Your task to perform on an android device: Open my contact list Image 0: 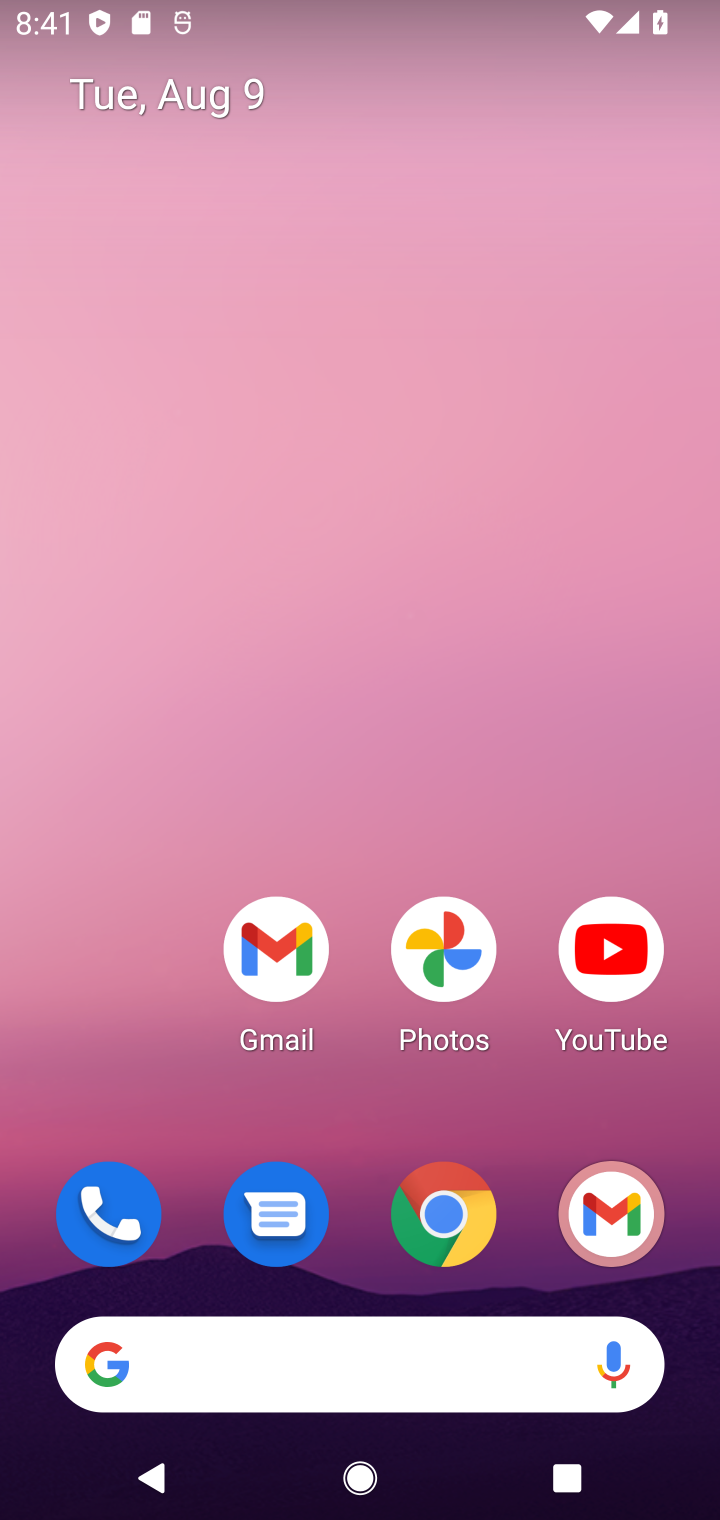
Step 0: drag from (46, 1469) to (399, 509)
Your task to perform on an android device: Open my contact list Image 1: 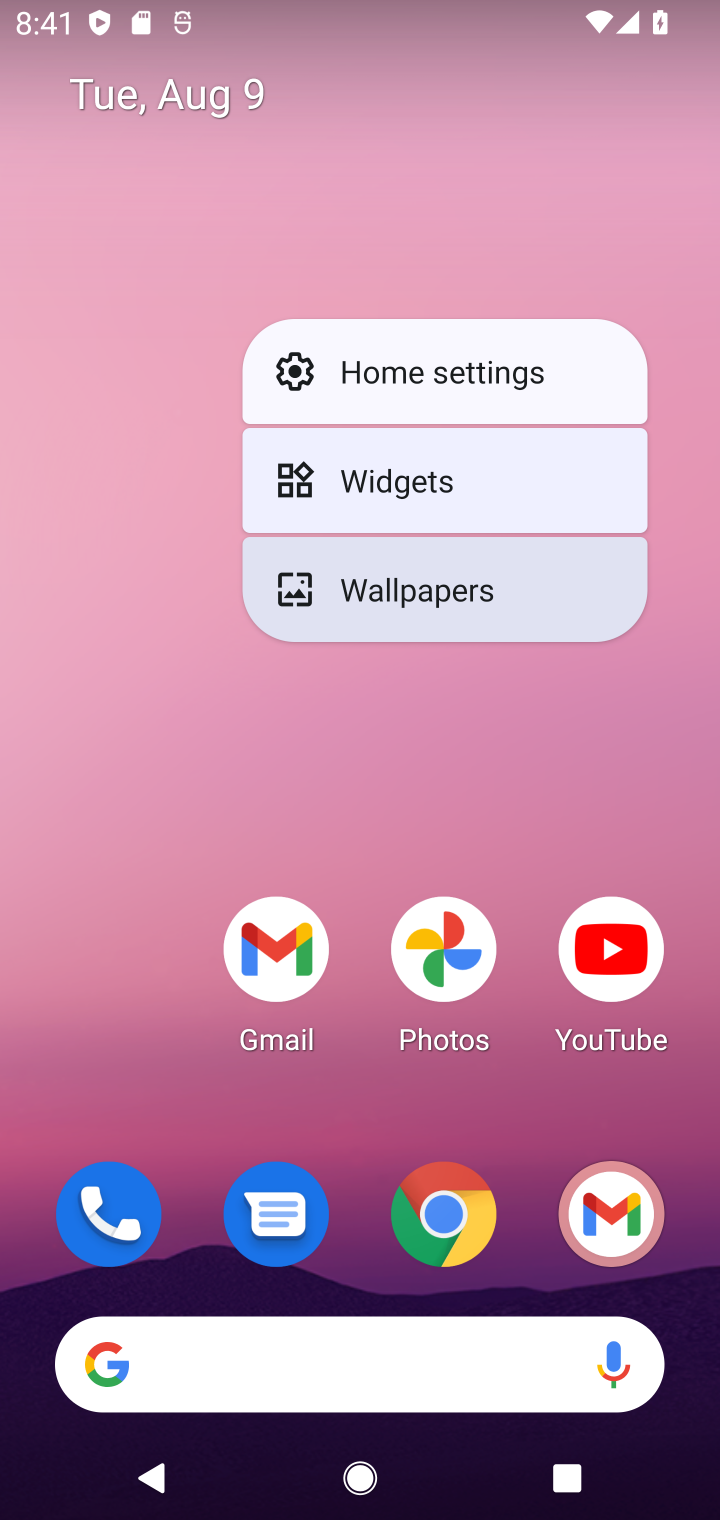
Step 1: click (78, 1226)
Your task to perform on an android device: Open my contact list Image 2: 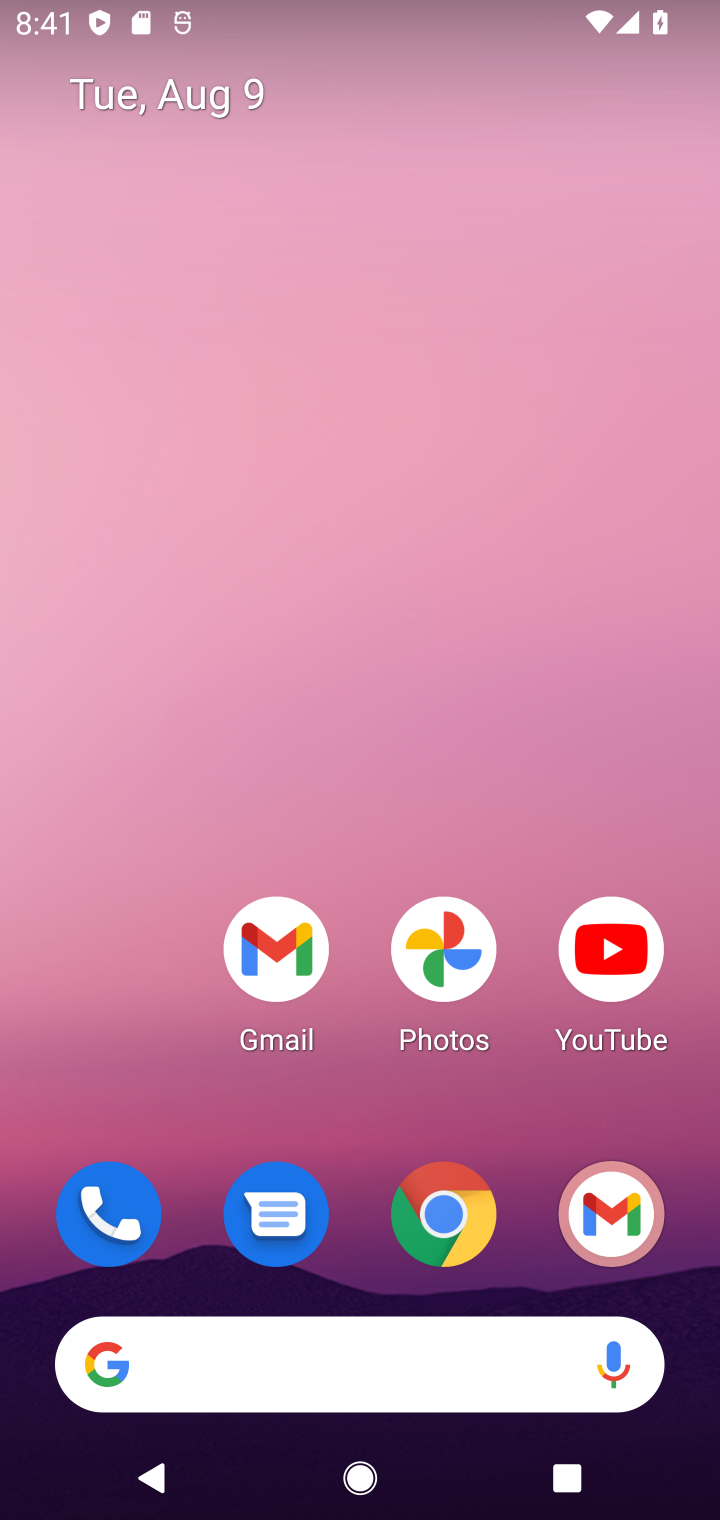
Step 2: click (90, 1189)
Your task to perform on an android device: Open my contact list Image 3: 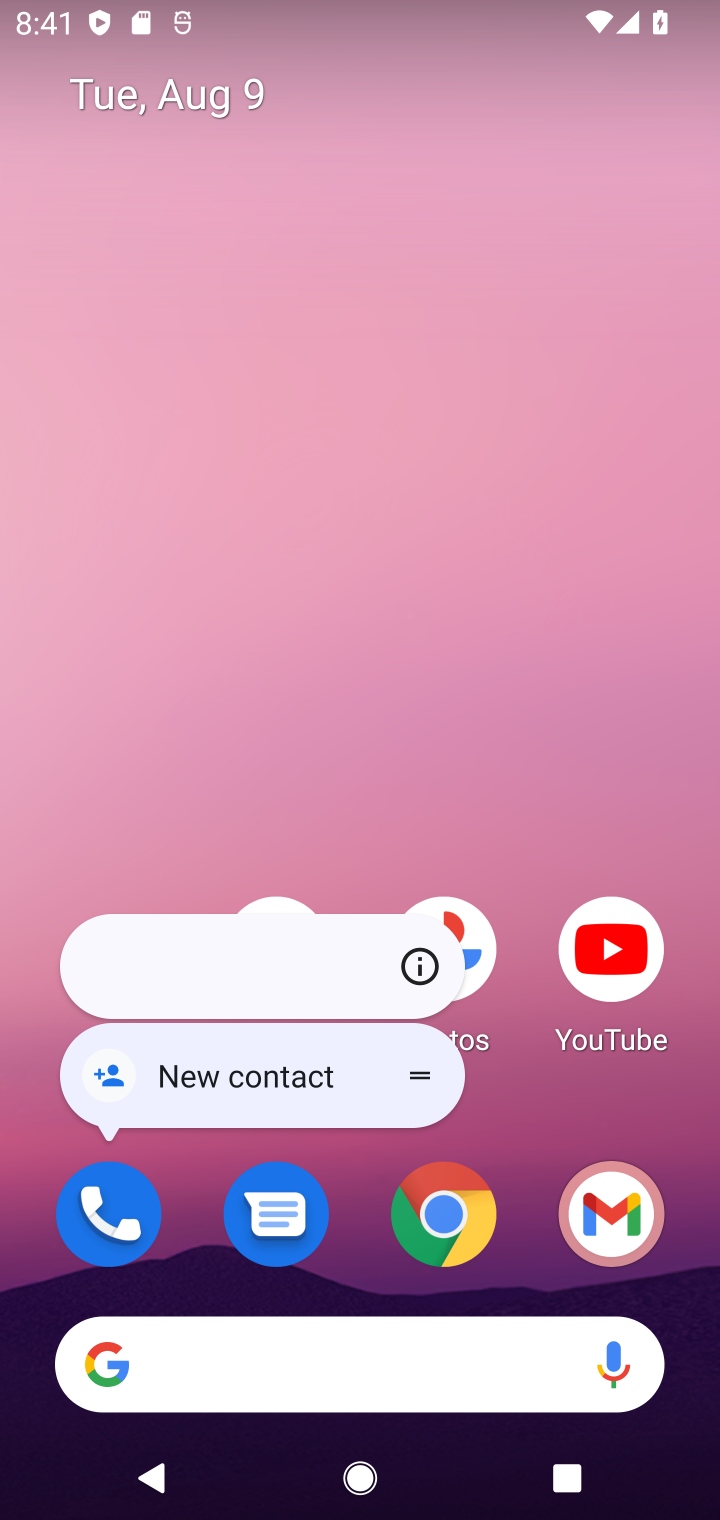
Step 3: click (90, 1189)
Your task to perform on an android device: Open my contact list Image 4: 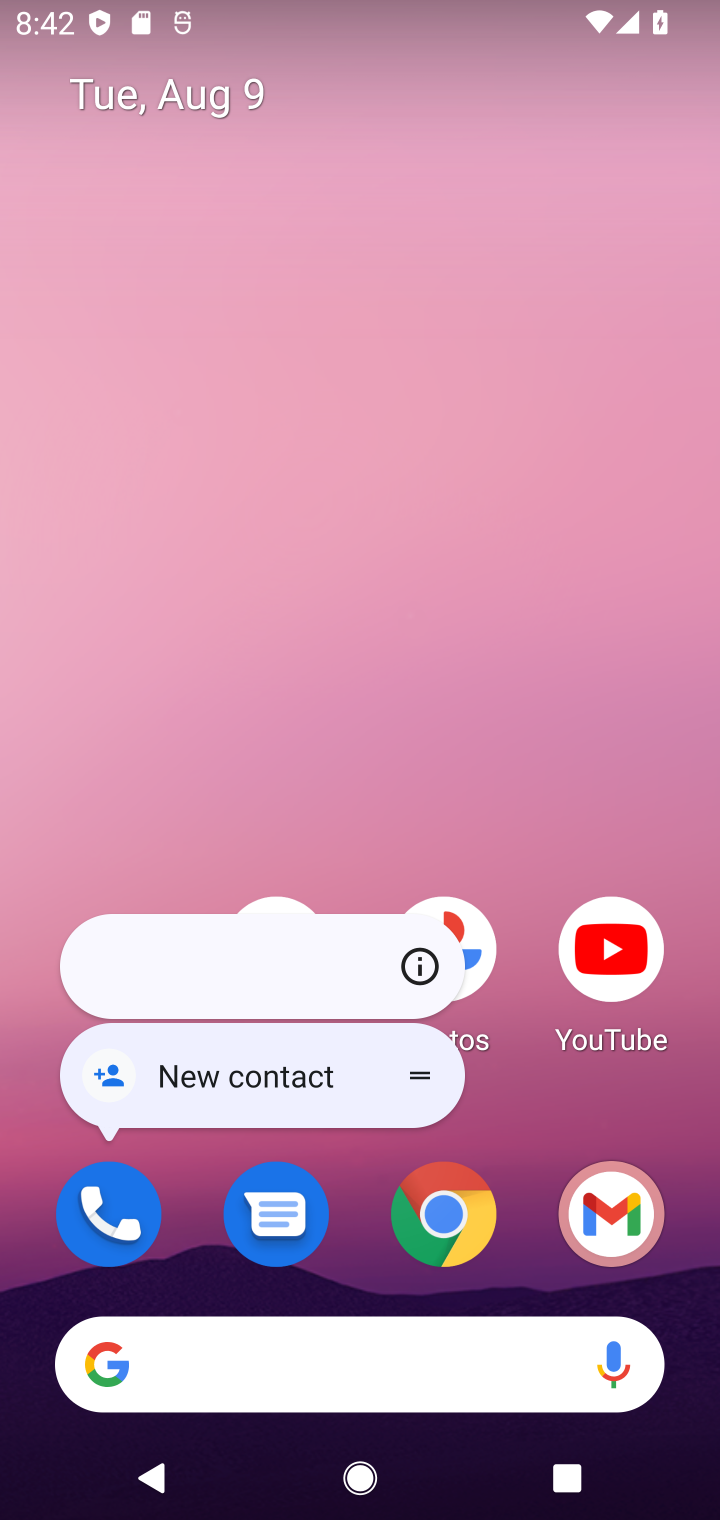
Step 4: task complete